Your task to perform on an android device: check battery use Image 0: 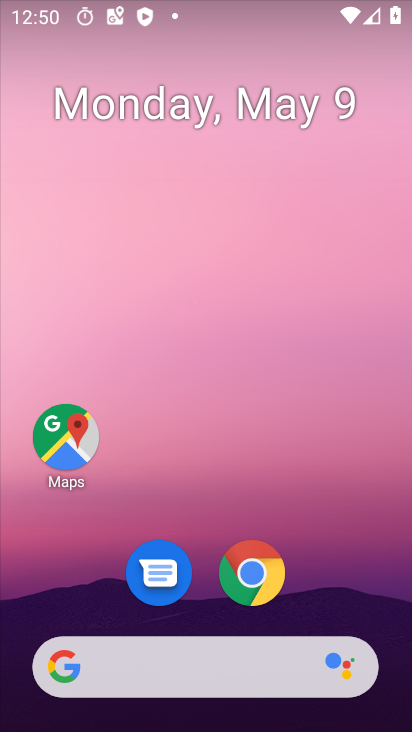
Step 0: drag from (264, 501) to (64, 114)
Your task to perform on an android device: check battery use Image 1: 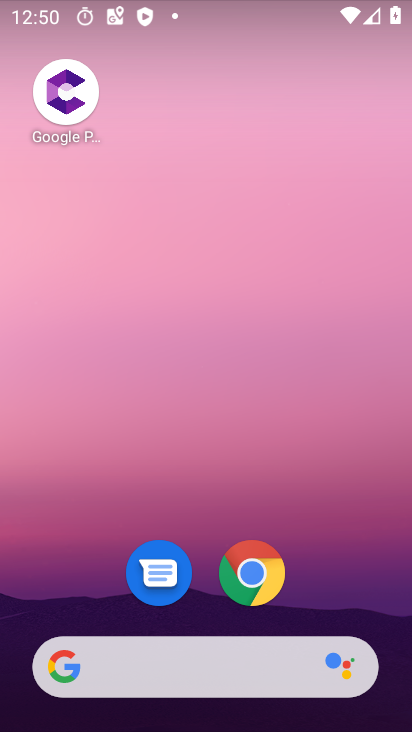
Step 1: drag from (325, 505) to (195, 53)
Your task to perform on an android device: check battery use Image 2: 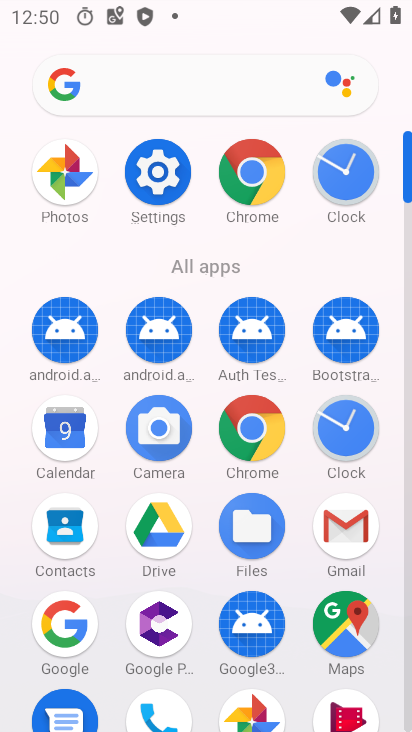
Step 2: click (158, 172)
Your task to perform on an android device: check battery use Image 3: 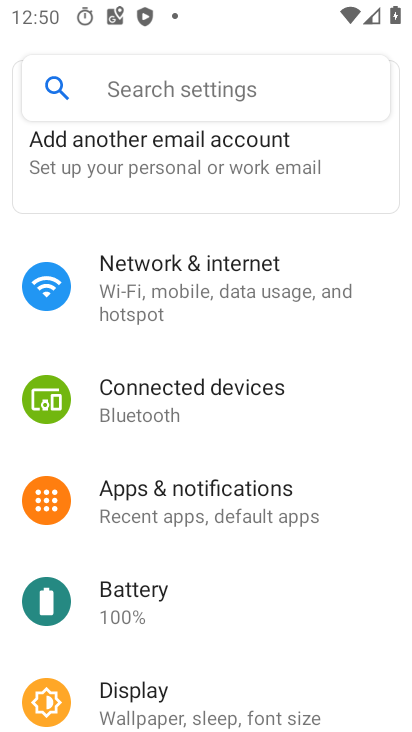
Step 3: click (122, 619)
Your task to perform on an android device: check battery use Image 4: 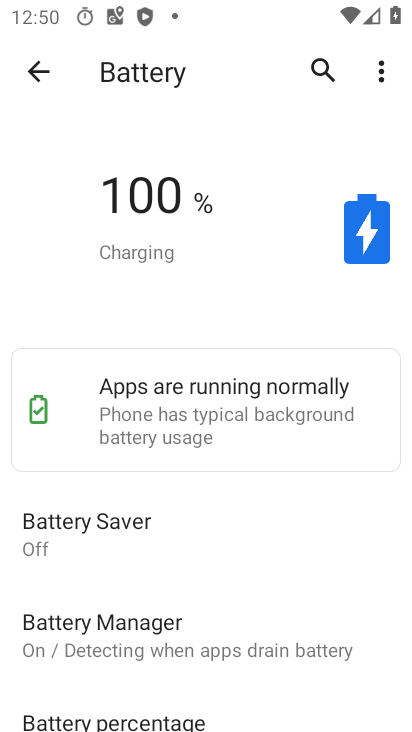
Step 4: task complete